Your task to perform on an android device: Show me recent news Image 0: 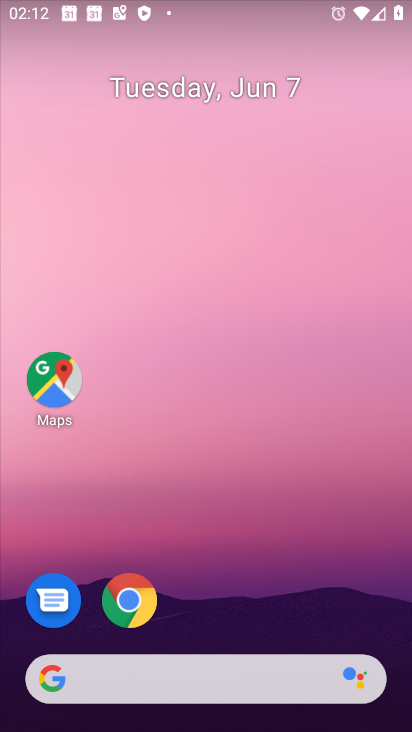
Step 0: drag from (6, 245) to (363, 248)
Your task to perform on an android device: Show me recent news Image 1: 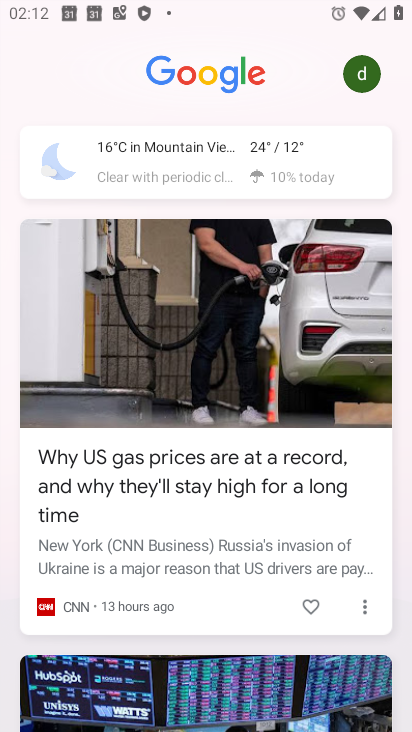
Step 1: task complete